Your task to perform on an android device: Open the calendar and show me this week's events? Image 0: 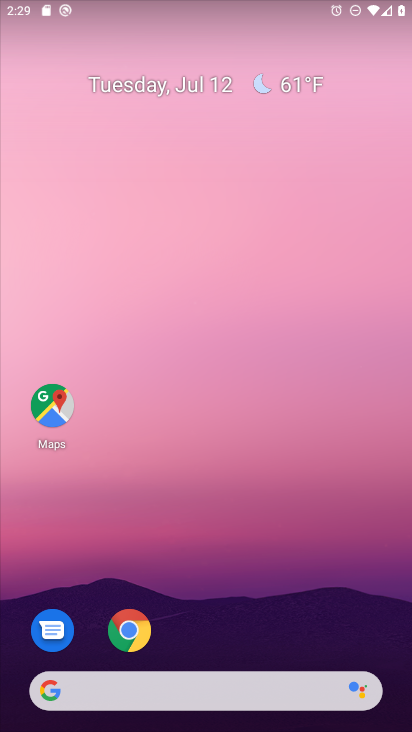
Step 0: drag from (233, 643) to (259, 132)
Your task to perform on an android device: Open the calendar and show me this week's events? Image 1: 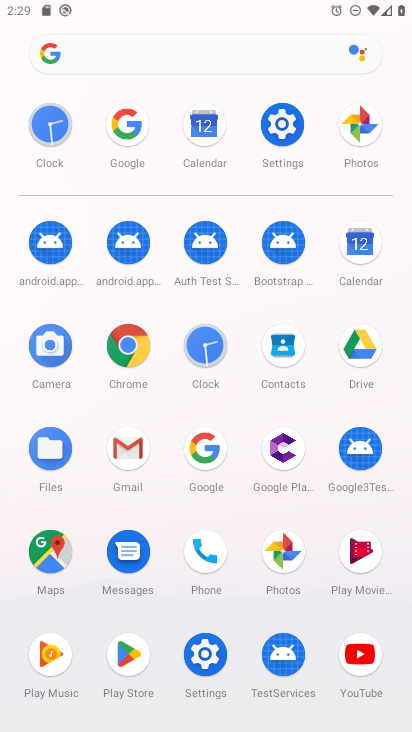
Step 1: click (347, 246)
Your task to perform on an android device: Open the calendar and show me this week's events? Image 2: 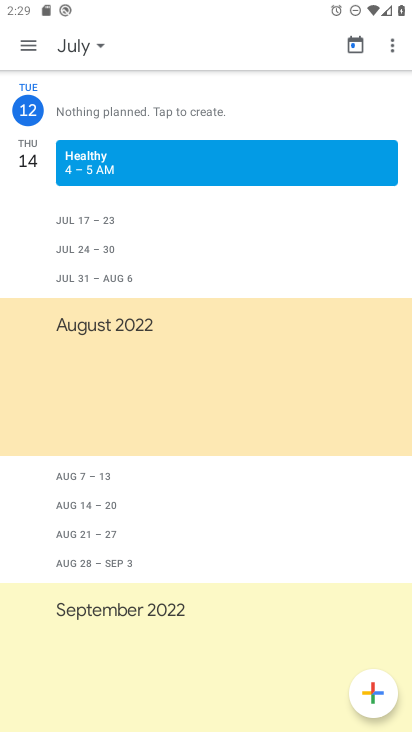
Step 2: click (102, 49)
Your task to perform on an android device: Open the calendar and show me this week's events? Image 3: 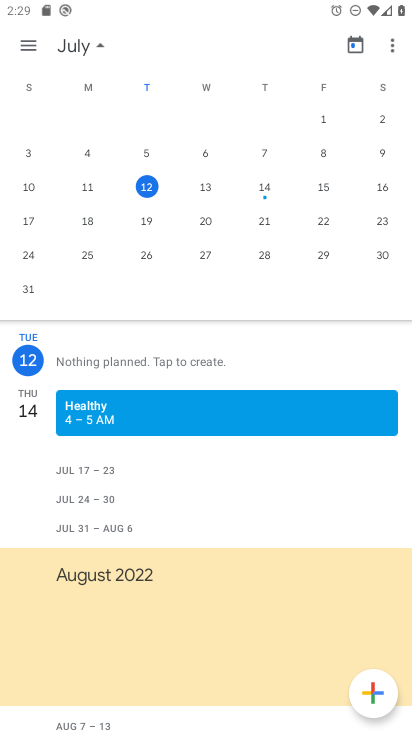
Step 3: task complete